Your task to perform on an android device: Open the stopwatch Image 0: 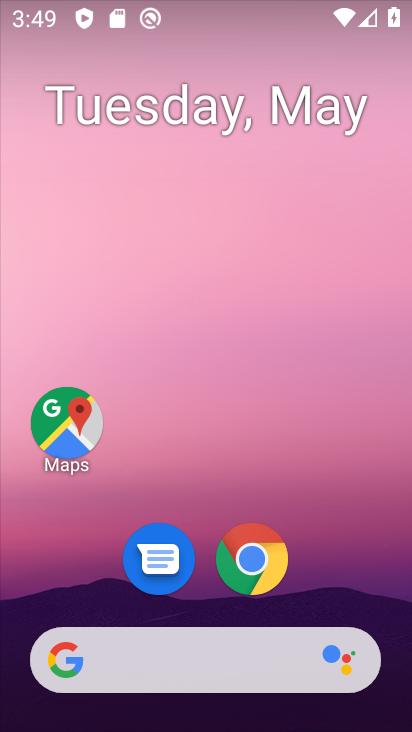
Step 0: drag from (359, 594) to (361, 193)
Your task to perform on an android device: Open the stopwatch Image 1: 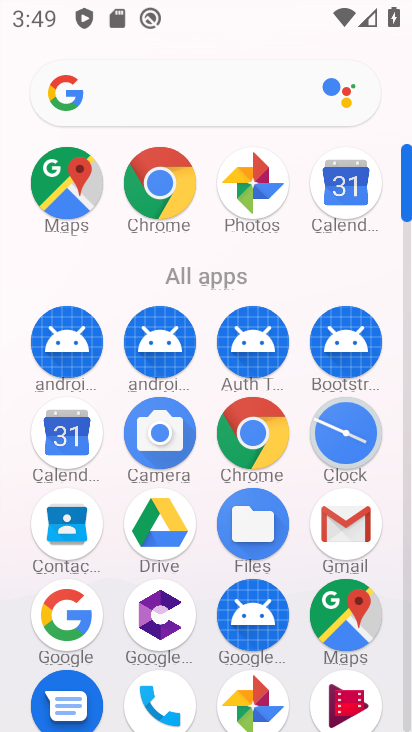
Step 1: click (359, 439)
Your task to perform on an android device: Open the stopwatch Image 2: 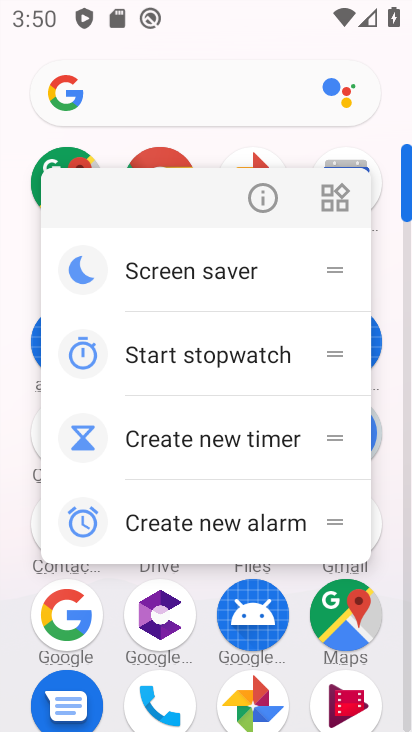
Step 2: click (380, 430)
Your task to perform on an android device: Open the stopwatch Image 3: 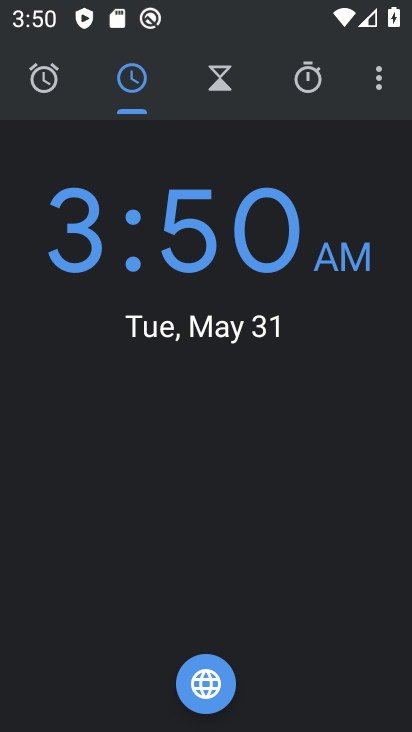
Step 3: click (328, 105)
Your task to perform on an android device: Open the stopwatch Image 4: 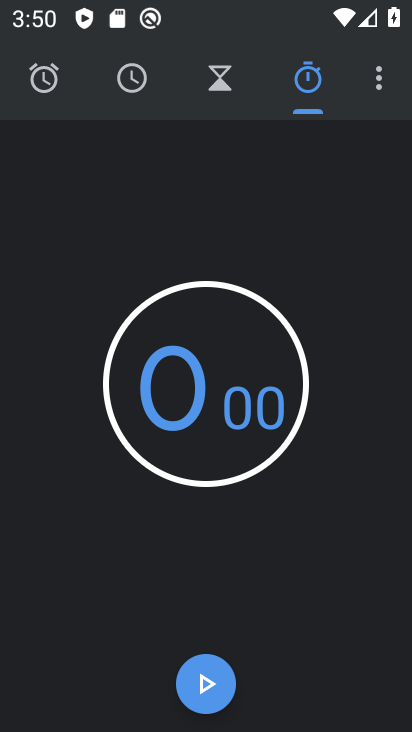
Step 4: task complete